Your task to perform on an android device: open app "ZOOM Cloud Meetings" (install if not already installed), go to login, and select forgot password Image 0: 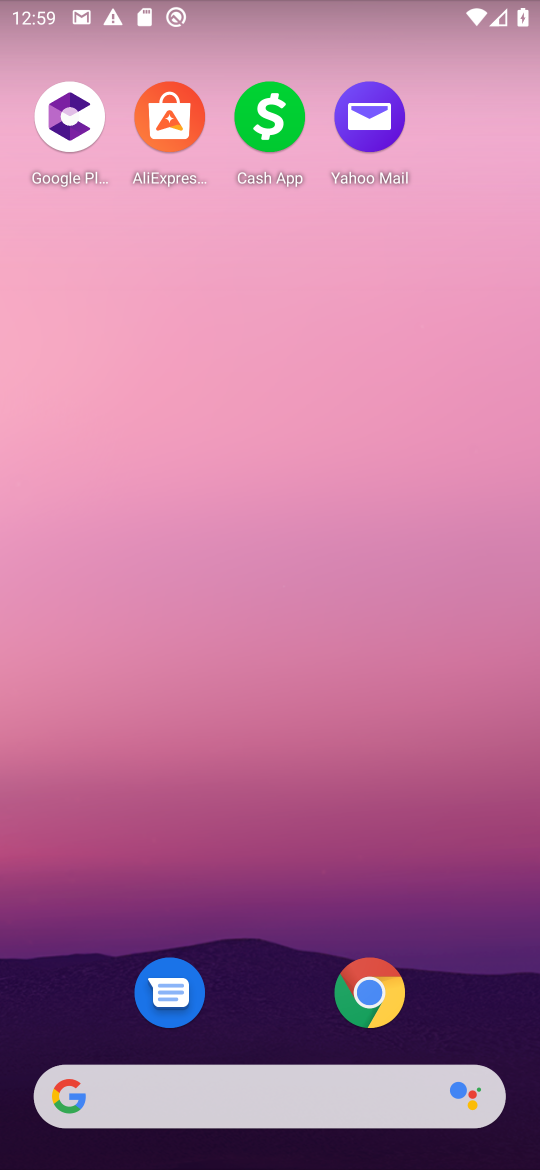
Step 0: drag from (259, 1041) to (234, 470)
Your task to perform on an android device: open app "ZOOM Cloud Meetings" (install if not already installed), go to login, and select forgot password Image 1: 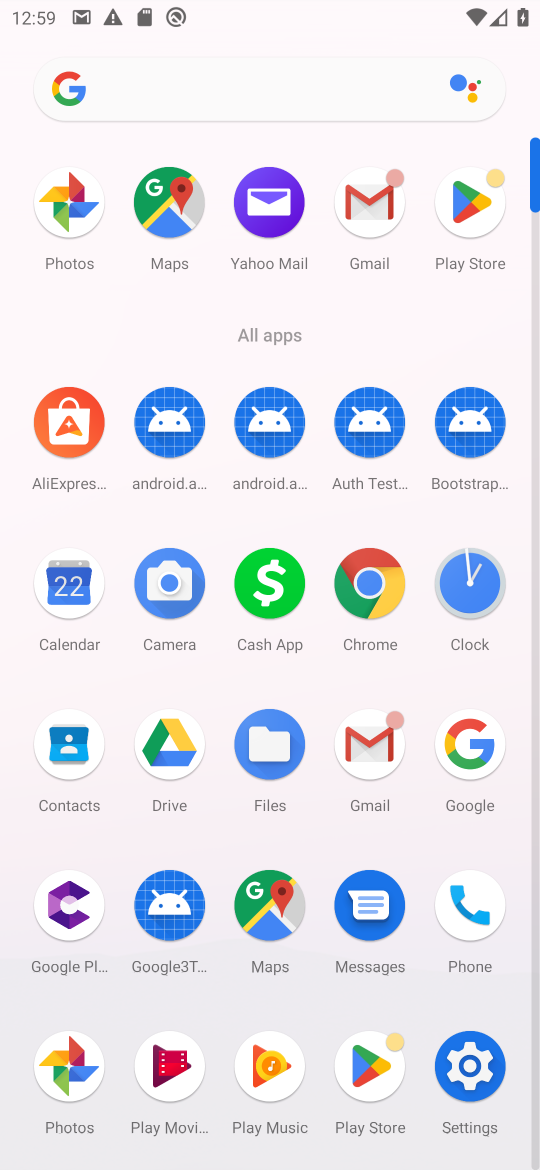
Step 1: click (463, 202)
Your task to perform on an android device: open app "ZOOM Cloud Meetings" (install if not already installed), go to login, and select forgot password Image 2: 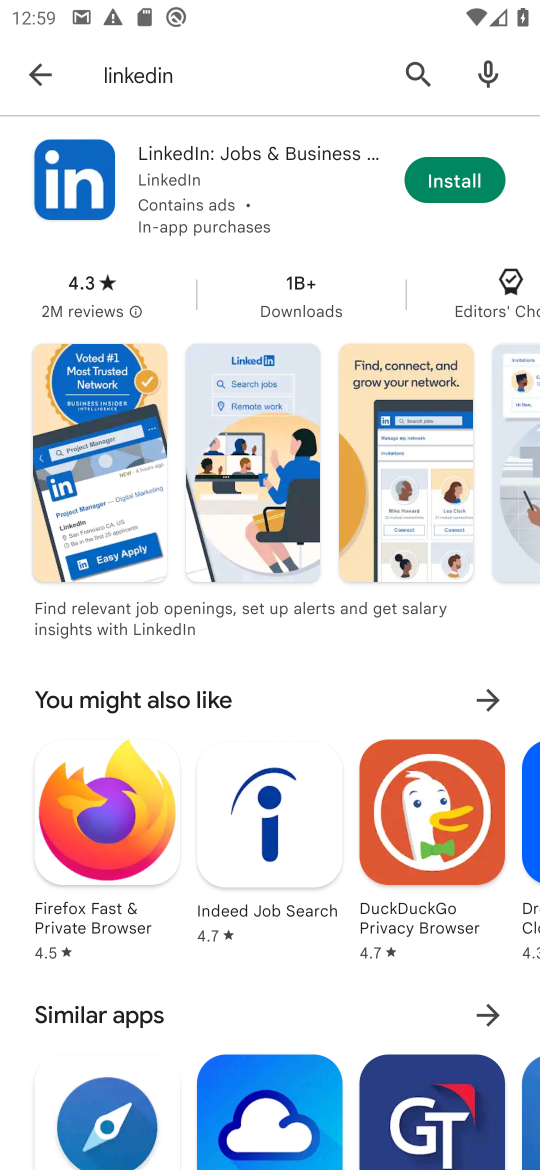
Step 2: click (405, 60)
Your task to perform on an android device: open app "ZOOM Cloud Meetings" (install if not already installed), go to login, and select forgot password Image 3: 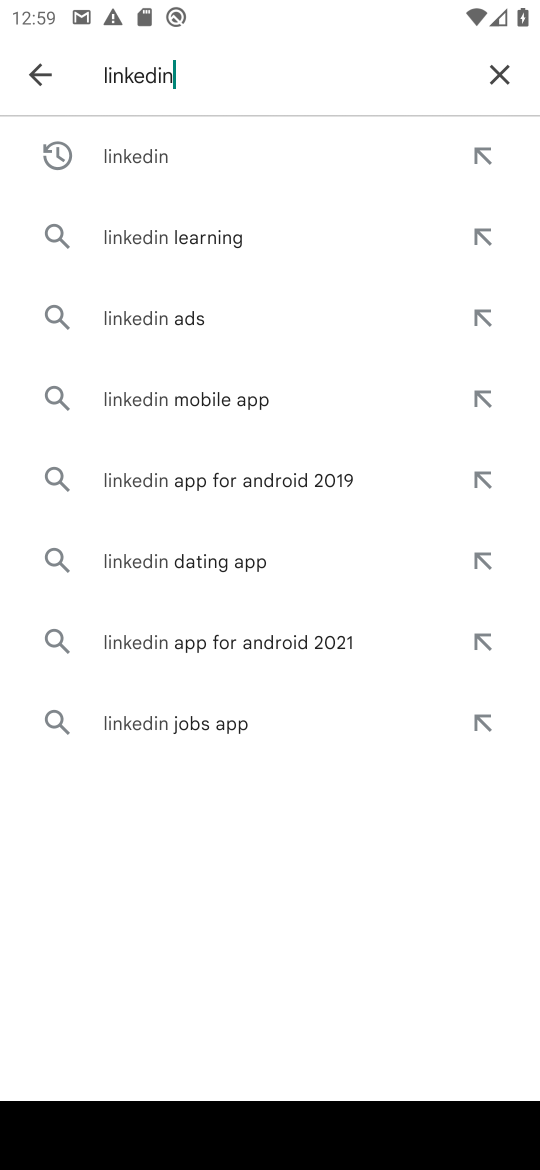
Step 3: click (499, 69)
Your task to perform on an android device: open app "ZOOM Cloud Meetings" (install if not already installed), go to login, and select forgot password Image 4: 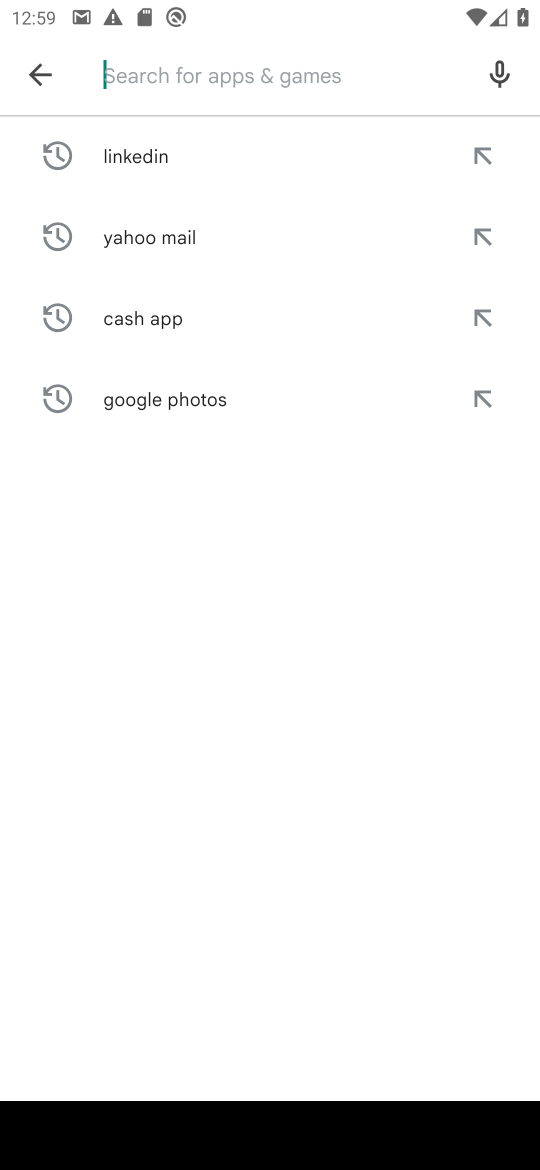
Step 4: type "ZOOM Cloud Meetings"
Your task to perform on an android device: open app "ZOOM Cloud Meetings" (install if not already installed), go to login, and select forgot password Image 5: 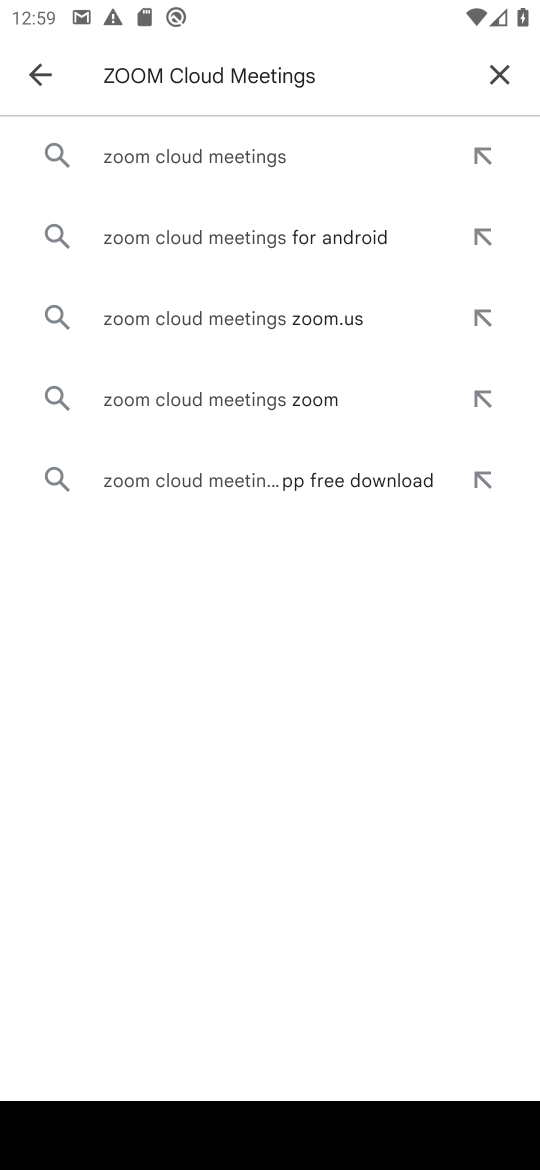
Step 5: click (228, 163)
Your task to perform on an android device: open app "ZOOM Cloud Meetings" (install if not already installed), go to login, and select forgot password Image 6: 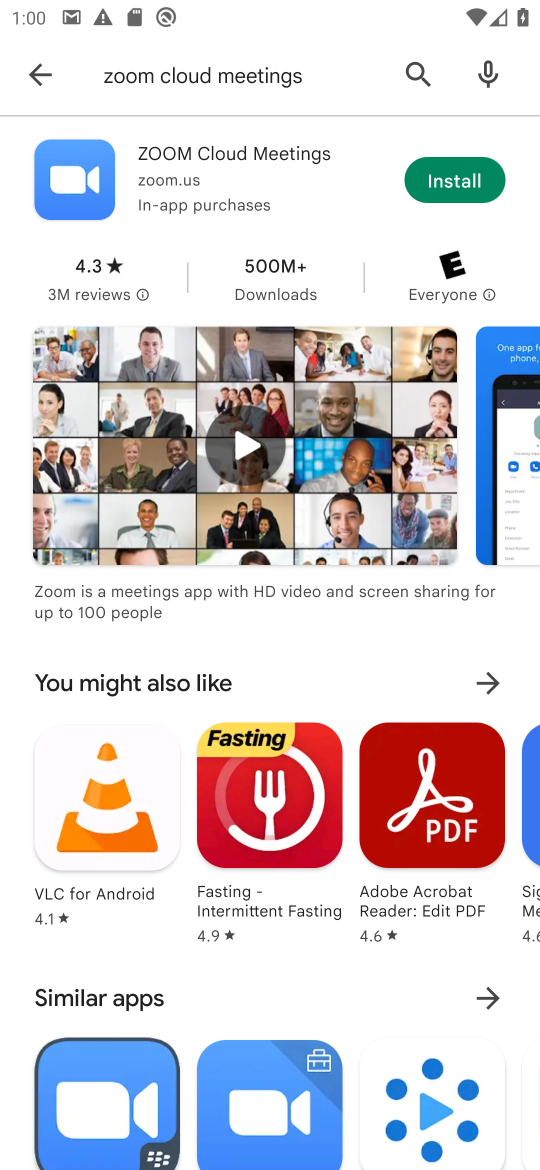
Step 6: click (438, 180)
Your task to perform on an android device: open app "ZOOM Cloud Meetings" (install if not already installed), go to login, and select forgot password Image 7: 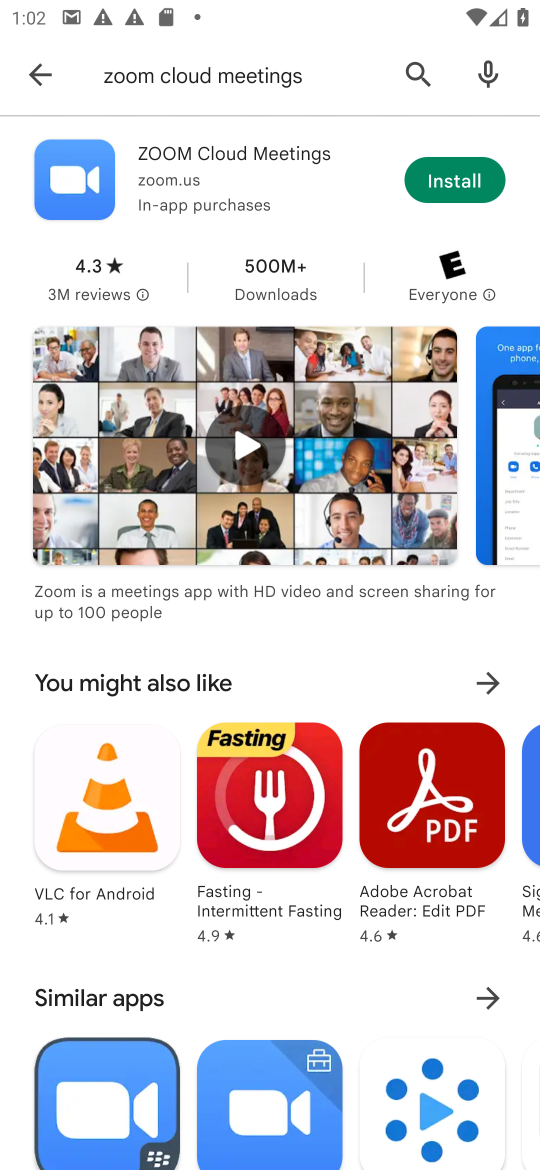
Step 7: click (445, 184)
Your task to perform on an android device: open app "ZOOM Cloud Meetings" (install if not already installed), go to login, and select forgot password Image 8: 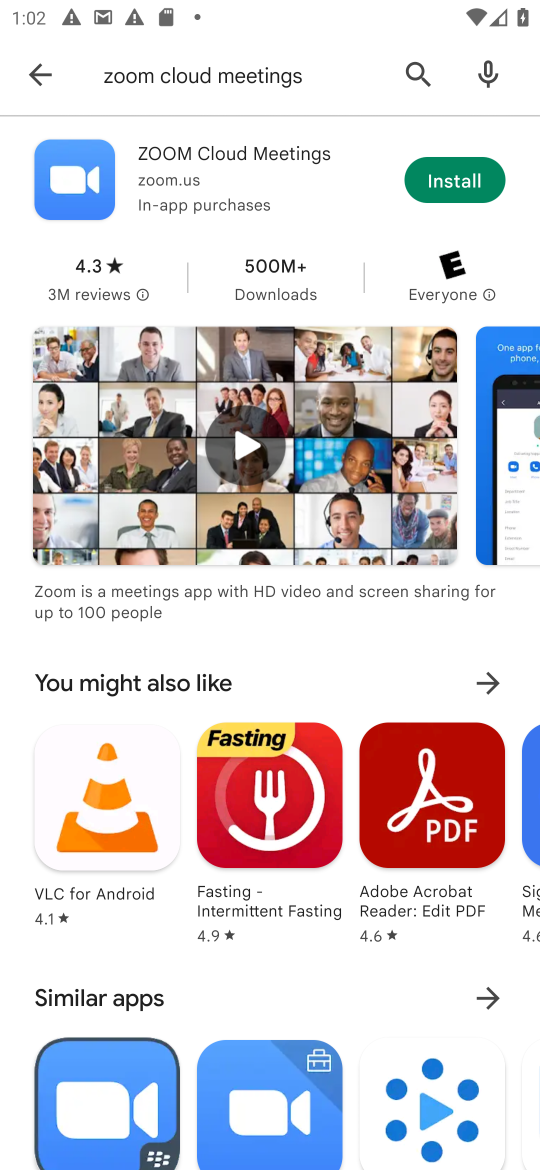
Step 8: task complete